Your task to perform on an android device: allow notifications from all sites in the chrome app Image 0: 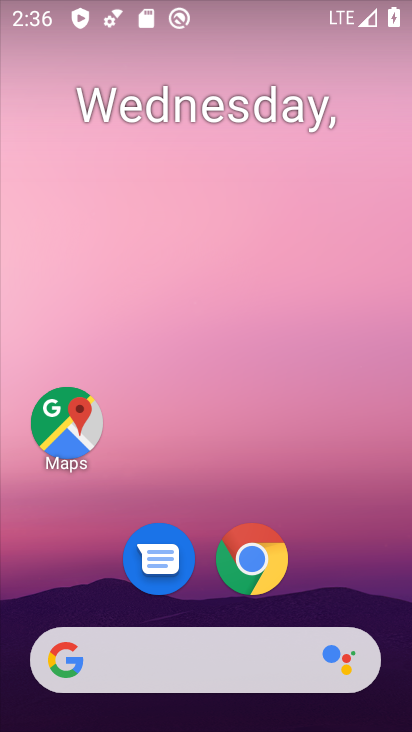
Step 0: drag from (351, 541) to (341, 167)
Your task to perform on an android device: allow notifications from all sites in the chrome app Image 1: 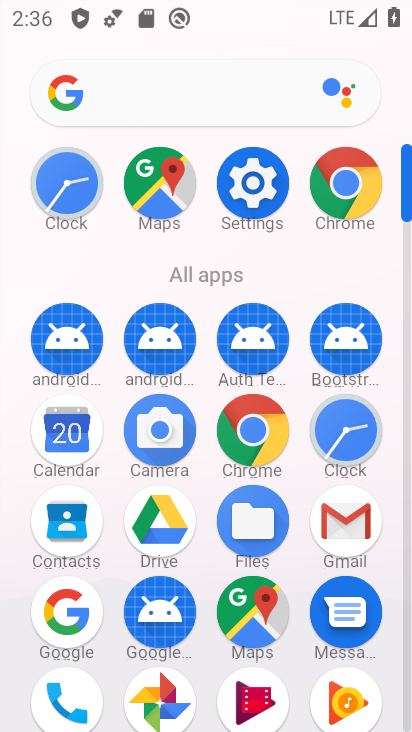
Step 1: click (255, 434)
Your task to perform on an android device: allow notifications from all sites in the chrome app Image 2: 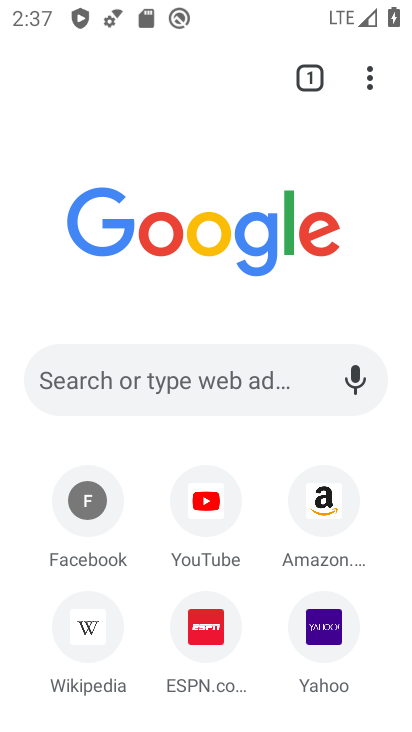
Step 2: drag from (377, 78) to (134, 637)
Your task to perform on an android device: allow notifications from all sites in the chrome app Image 3: 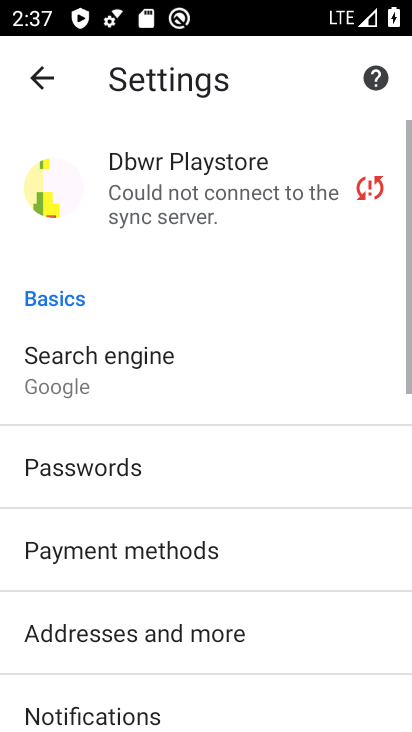
Step 3: drag from (301, 665) to (280, 363)
Your task to perform on an android device: allow notifications from all sites in the chrome app Image 4: 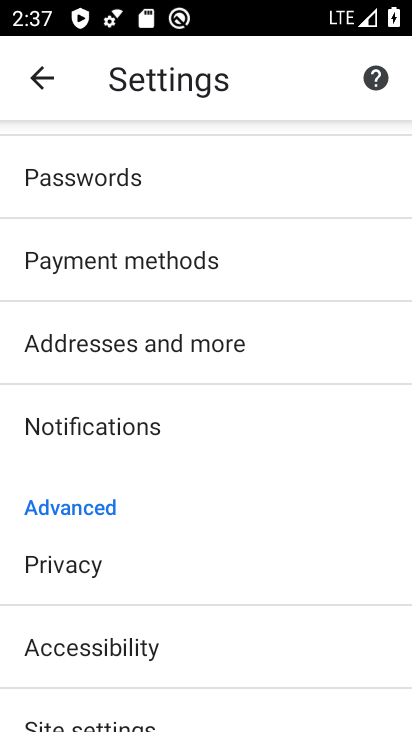
Step 4: drag from (267, 614) to (286, 389)
Your task to perform on an android device: allow notifications from all sites in the chrome app Image 5: 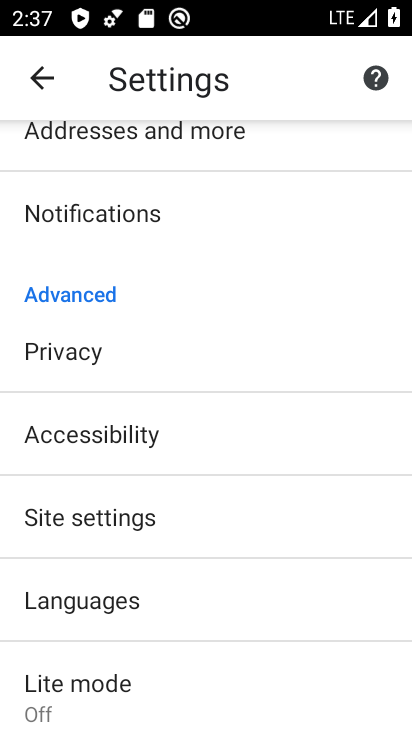
Step 5: click (179, 518)
Your task to perform on an android device: allow notifications from all sites in the chrome app Image 6: 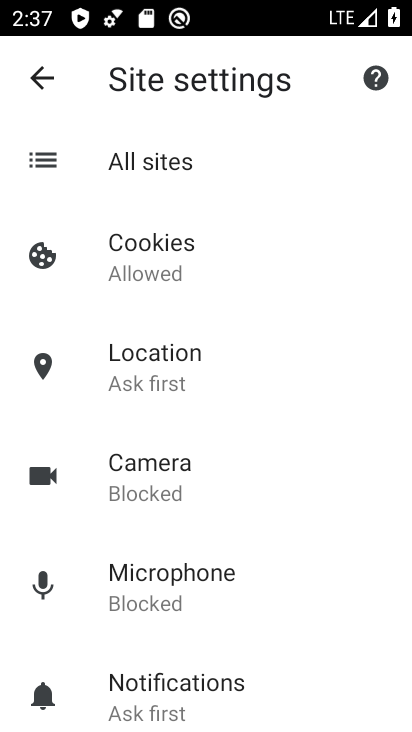
Step 6: click (249, 172)
Your task to perform on an android device: allow notifications from all sites in the chrome app Image 7: 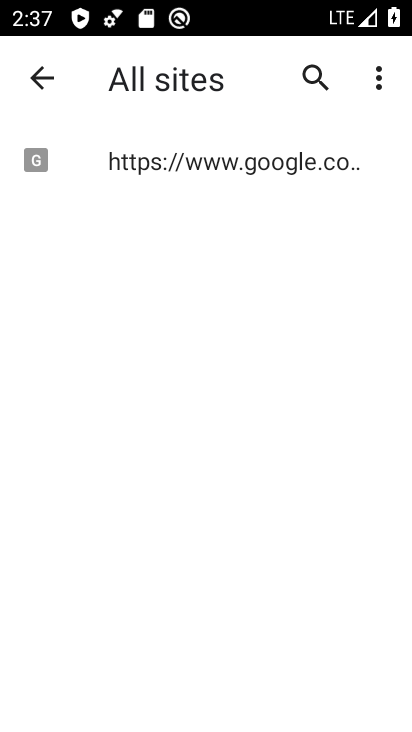
Step 7: click (275, 171)
Your task to perform on an android device: allow notifications from all sites in the chrome app Image 8: 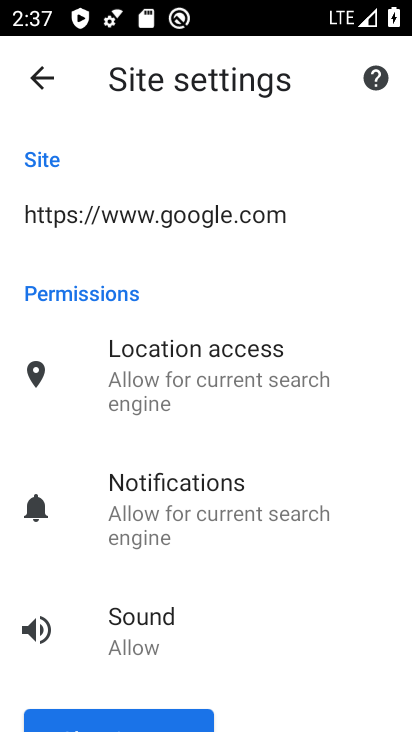
Step 8: task complete